Your task to perform on an android device: Open Chrome and go to the settings page Image 0: 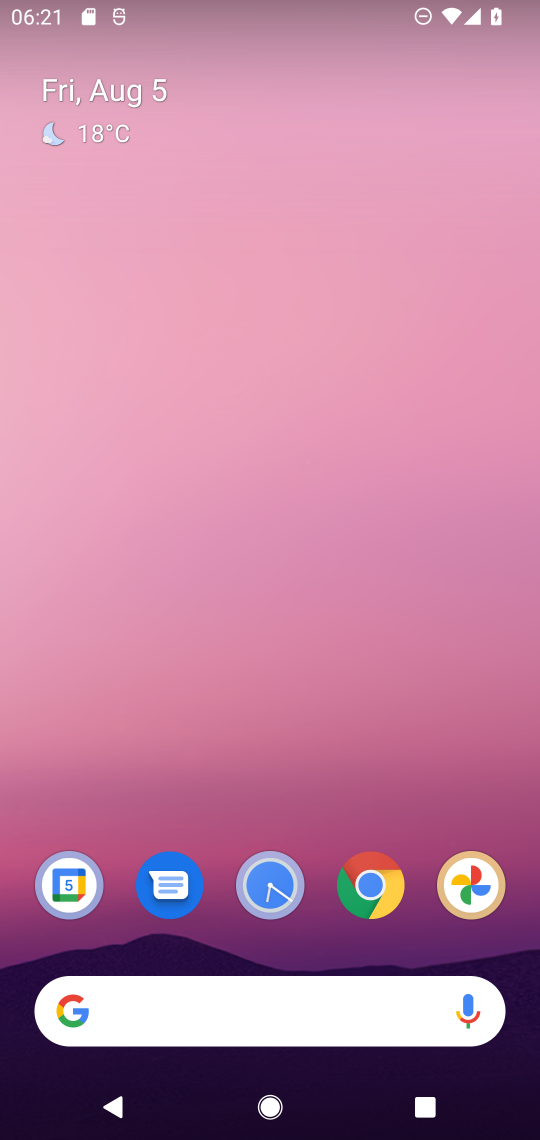
Step 0: click (364, 875)
Your task to perform on an android device: Open Chrome and go to the settings page Image 1: 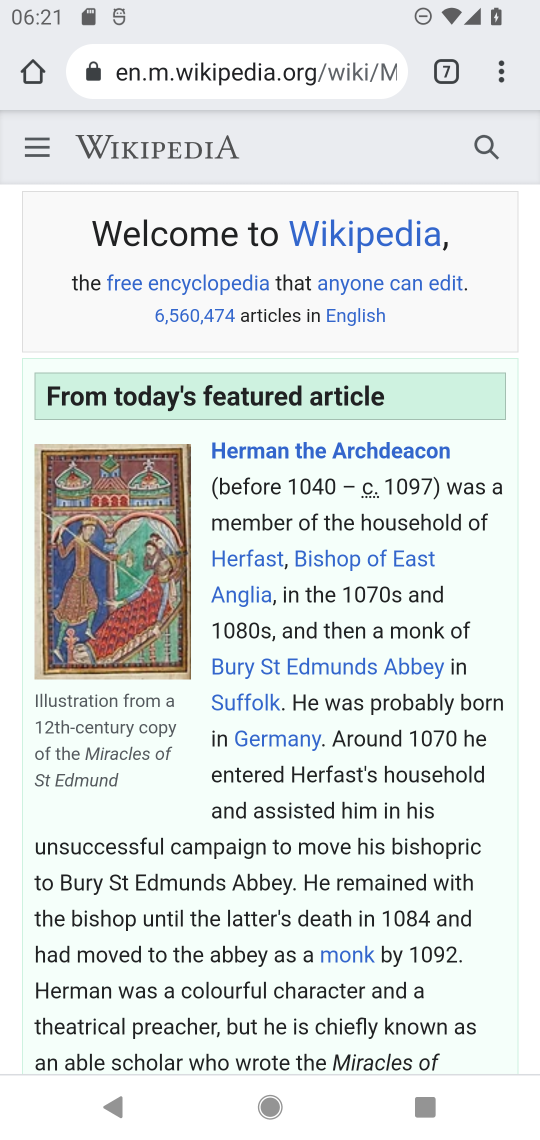
Step 1: click (500, 77)
Your task to perform on an android device: Open Chrome and go to the settings page Image 2: 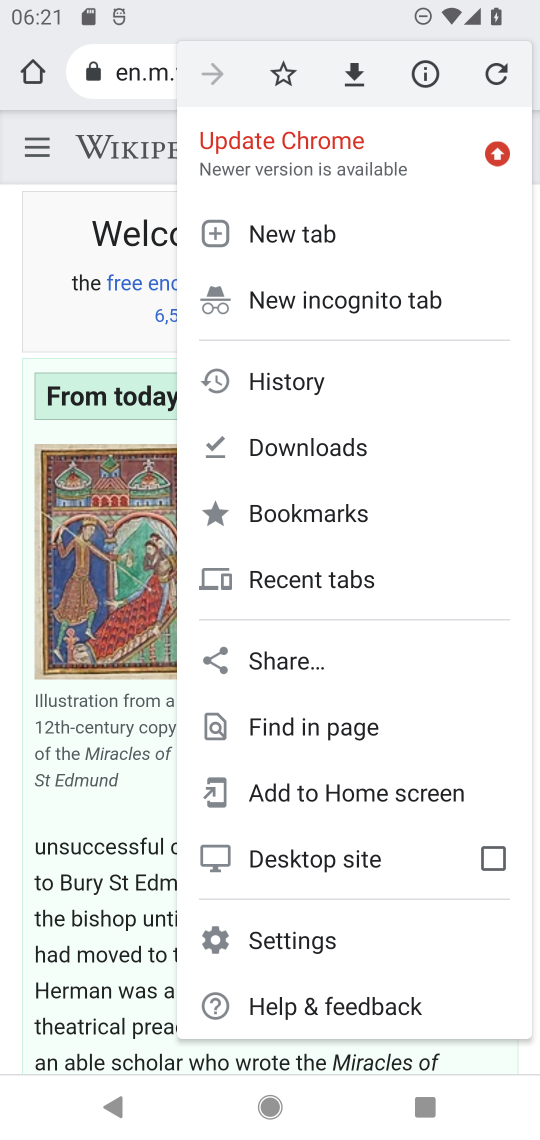
Step 2: click (278, 936)
Your task to perform on an android device: Open Chrome and go to the settings page Image 3: 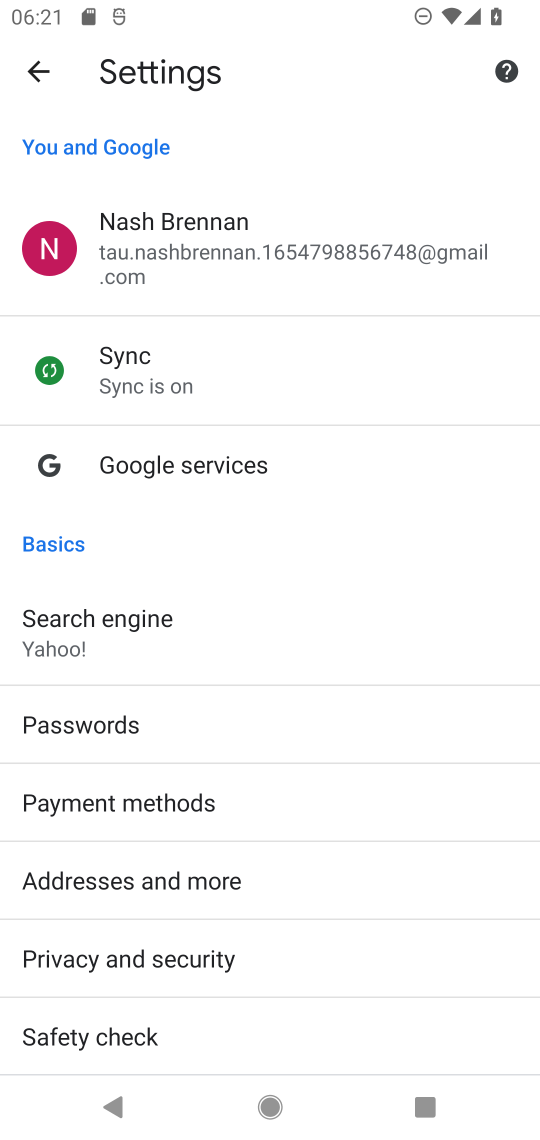
Step 3: task complete